Your task to perform on an android device: turn pop-ups on in chrome Image 0: 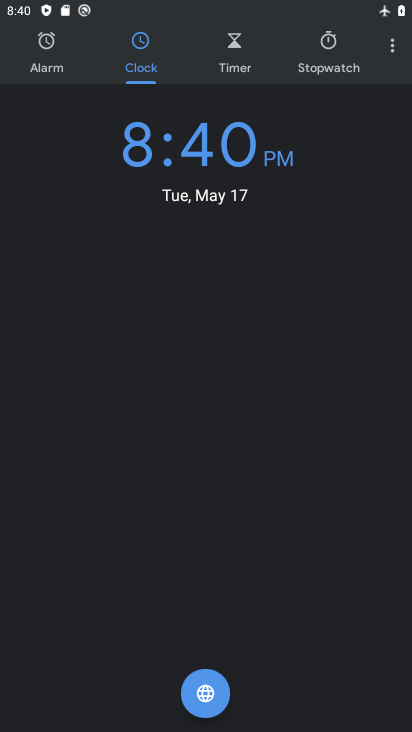
Step 0: press home button
Your task to perform on an android device: turn pop-ups on in chrome Image 1: 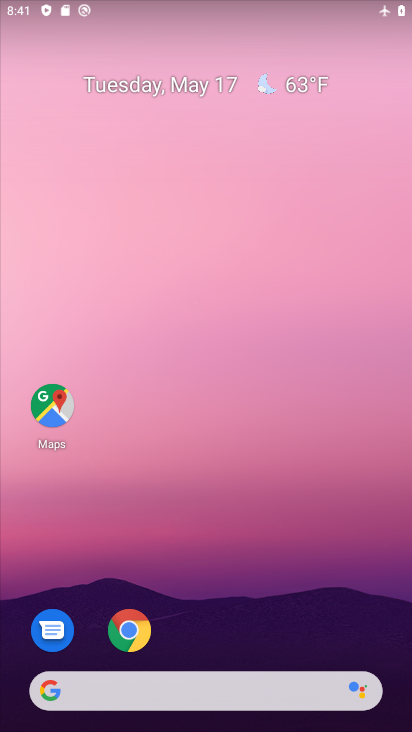
Step 1: click (121, 622)
Your task to perform on an android device: turn pop-ups on in chrome Image 2: 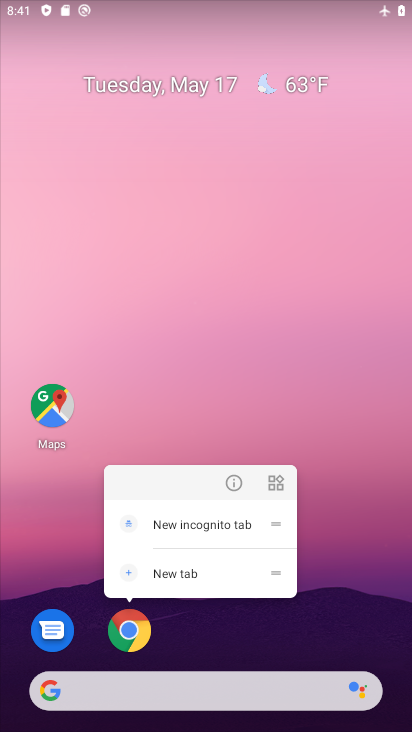
Step 2: click (127, 628)
Your task to perform on an android device: turn pop-ups on in chrome Image 3: 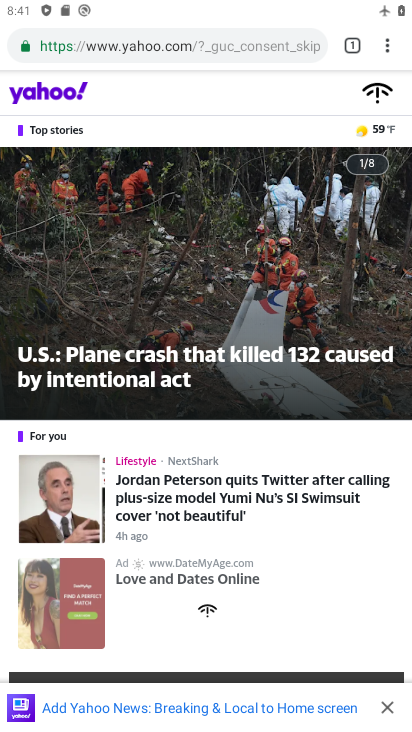
Step 3: drag from (386, 59) to (286, 498)
Your task to perform on an android device: turn pop-ups on in chrome Image 4: 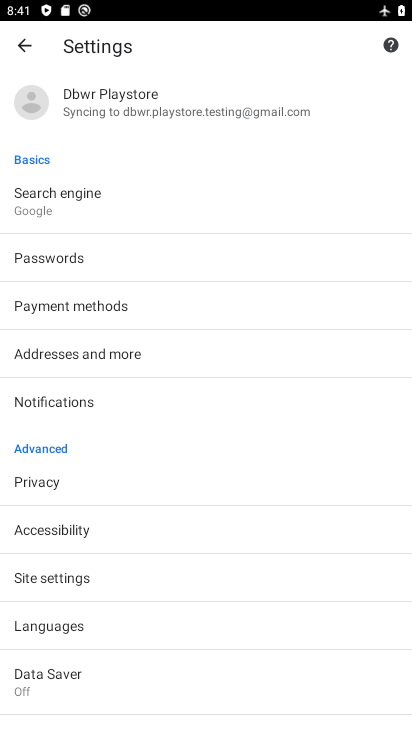
Step 4: drag from (173, 584) to (232, 465)
Your task to perform on an android device: turn pop-ups on in chrome Image 5: 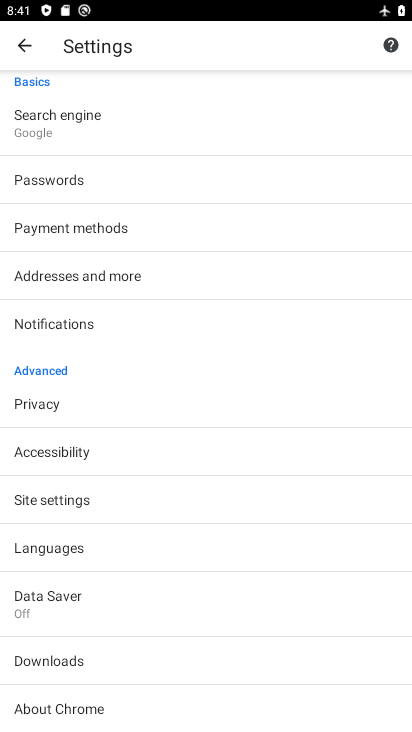
Step 5: click (131, 506)
Your task to perform on an android device: turn pop-ups on in chrome Image 6: 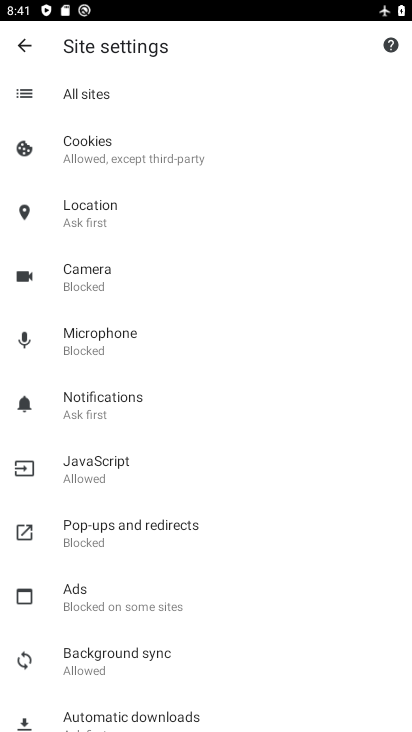
Step 6: click (162, 544)
Your task to perform on an android device: turn pop-ups on in chrome Image 7: 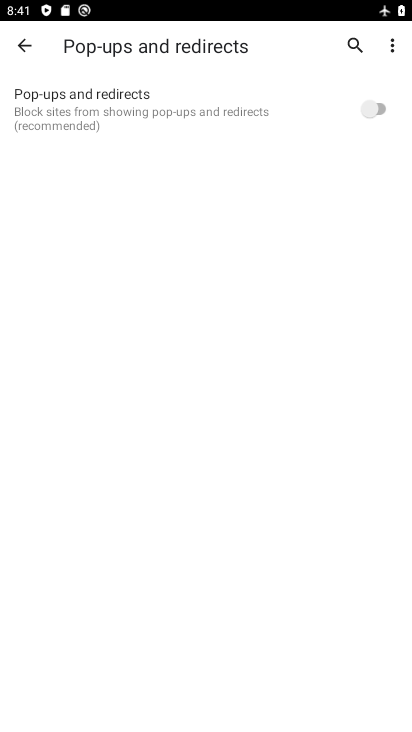
Step 7: click (397, 98)
Your task to perform on an android device: turn pop-ups on in chrome Image 8: 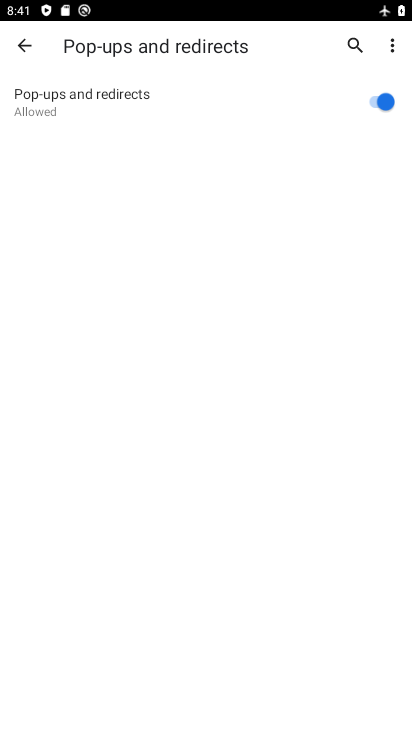
Step 8: task complete